Your task to perform on an android device: Open Yahoo.com Image 0: 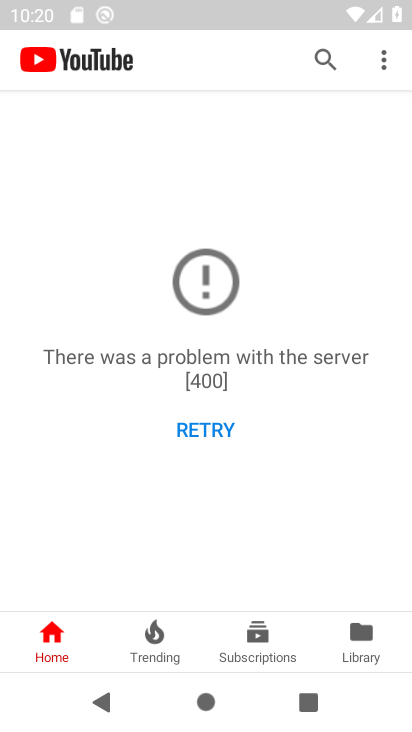
Step 0: press home button
Your task to perform on an android device: Open Yahoo.com Image 1: 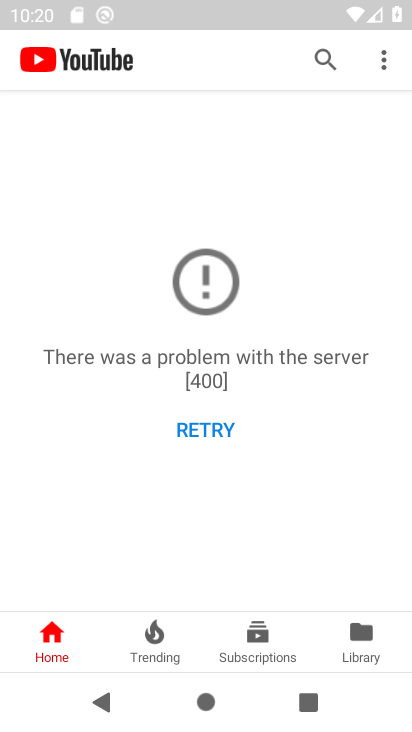
Step 1: click (397, 502)
Your task to perform on an android device: Open Yahoo.com Image 2: 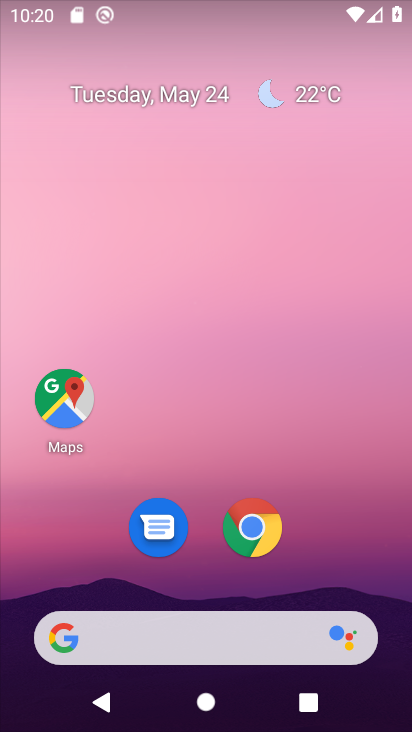
Step 2: click (258, 540)
Your task to perform on an android device: Open Yahoo.com Image 3: 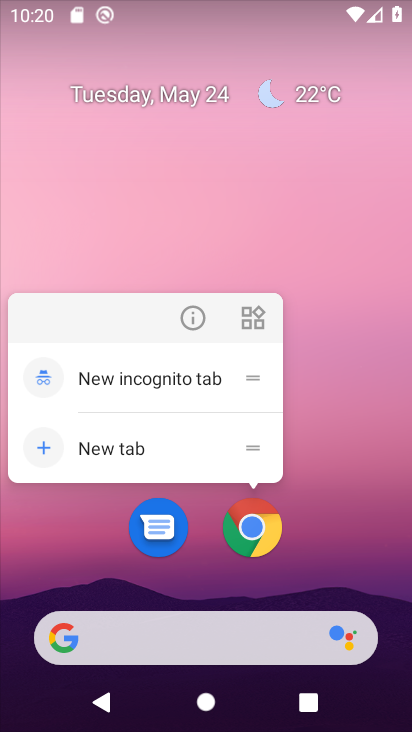
Step 3: click (253, 530)
Your task to perform on an android device: Open Yahoo.com Image 4: 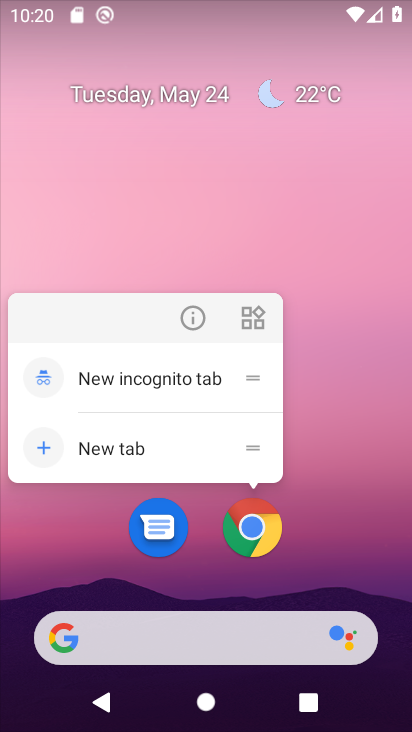
Step 4: click (253, 529)
Your task to perform on an android device: Open Yahoo.com Image 5: 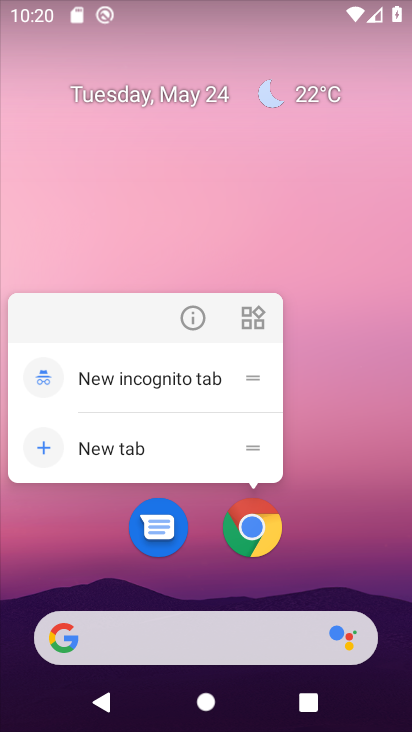
Step 5: click (249, 537)
Your task to perform on an android device: Open Yahoo.com Image 6: 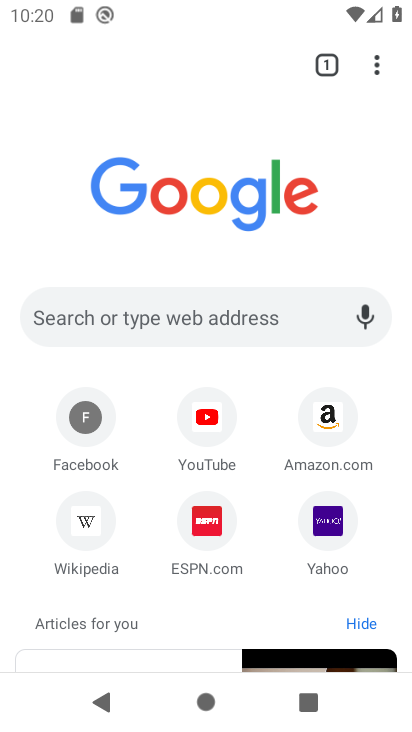
Step 6: click (322, 515)
Your task to perform on an android device: Open Yahoo.com Image 7: 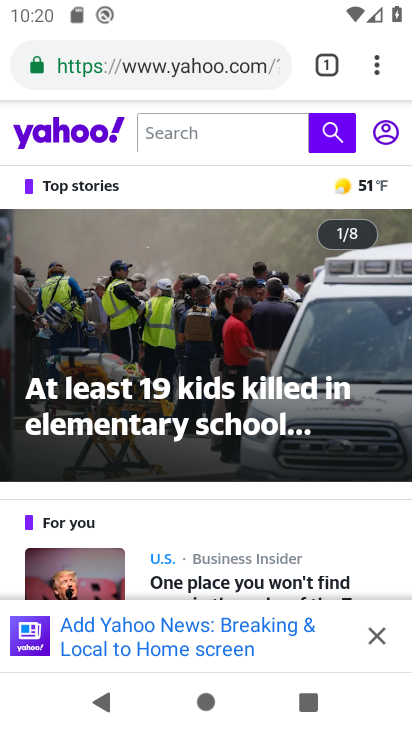
Step 7: task complete